Your task to perform on an android device: set default search engine in the chrome app Image 0: 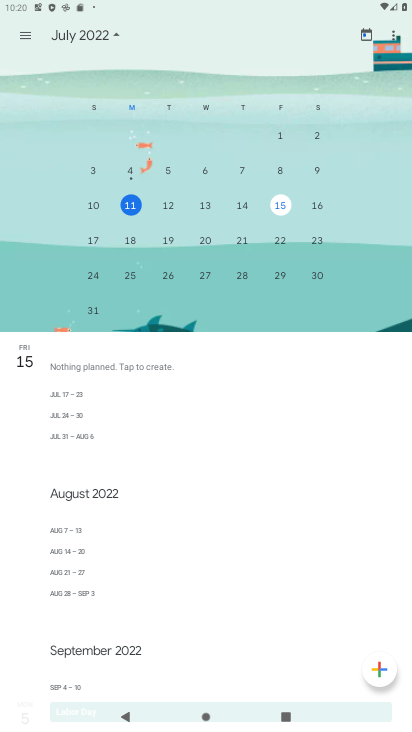
Step 0: press home button
Your task to perform on an android device: set default search engine in the chrome app Image 1: 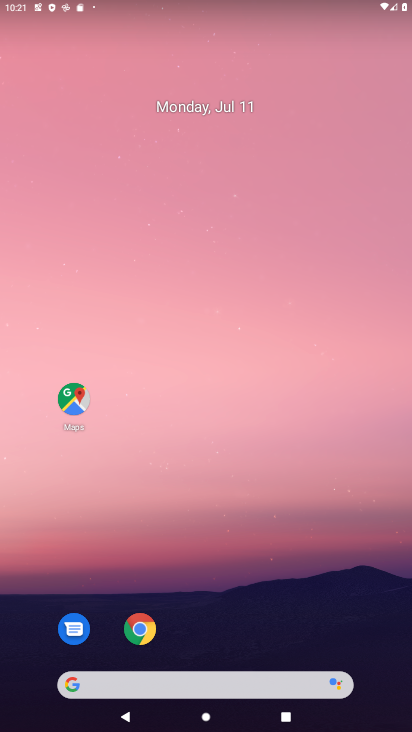
Step 1: click (153, 622)
Your task to perform on an android device: set default search engine in the chrome app Image 2: 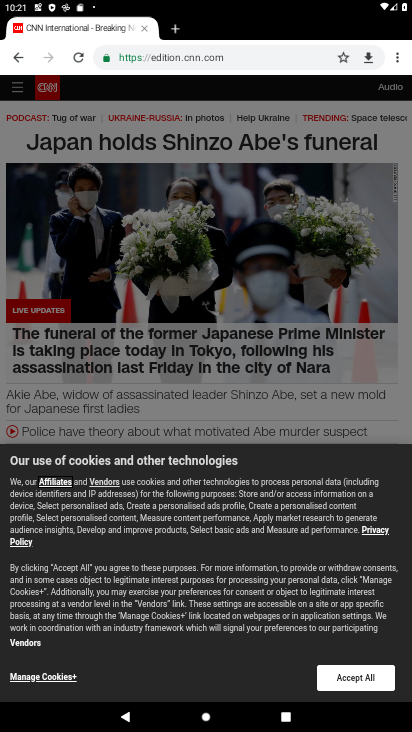
Step 2: click (399, 64)
Your task to perform on an android device: set default search engine in the chrome app Image 3: 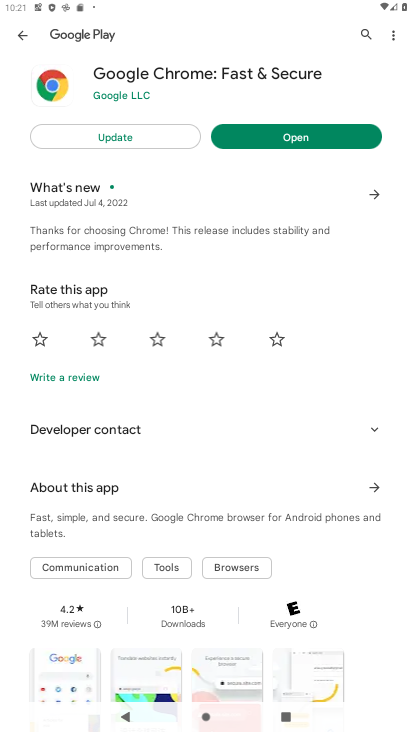
Step 3: click (140, 137)
Your task to perform on an android device: set default search engine in the chrome app Image 4: 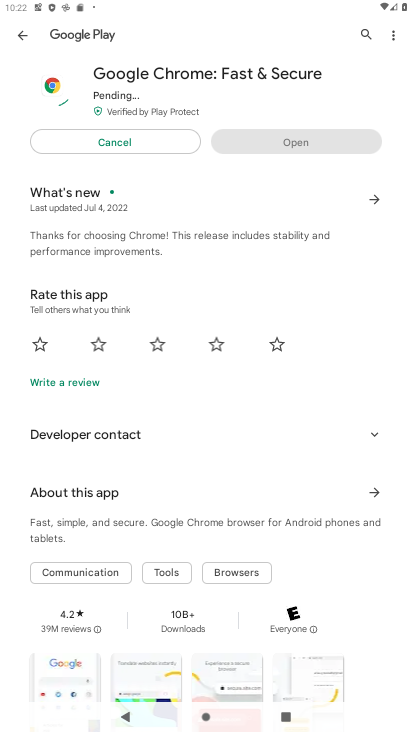
Step 4: task complete